Your task to perform on an android device: turn on the 24-hour format for clock Image 0: 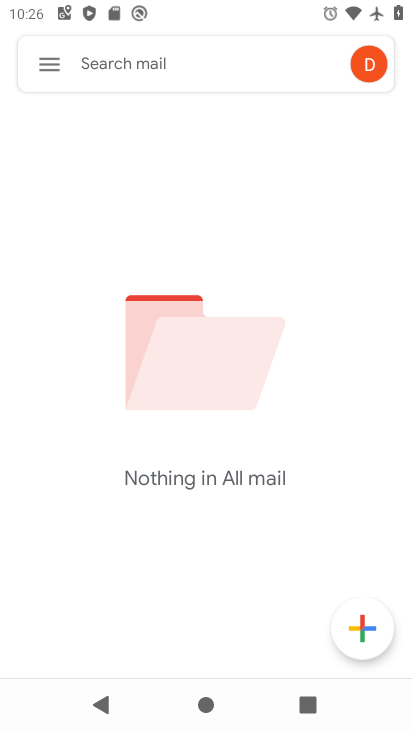
Step 0: press home button
Your task to perform on an android device: turn on the 24-hour format for clock Image 1: 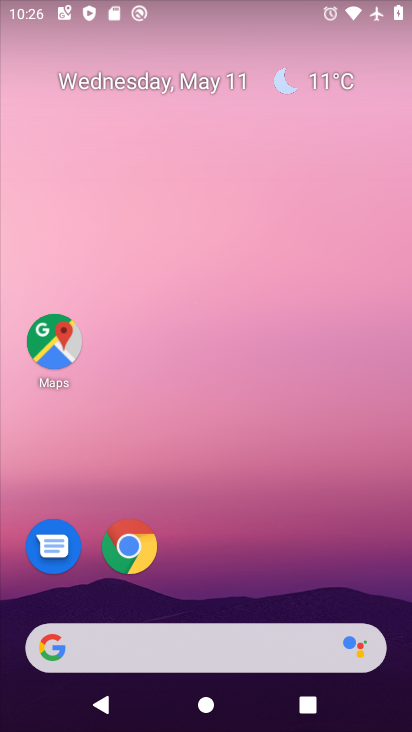
Step 1: drag from (384, 614) to (296, 53)
Your task to perform on an android device: turn on the 24-hour format for clock Image 2: 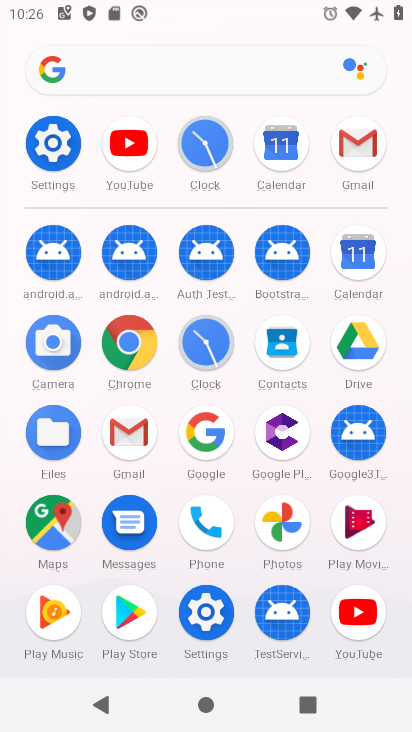
Step 2: click (203, 344)
Your task to perform on an android device: turn on the 24-hour format for clock Image 3: 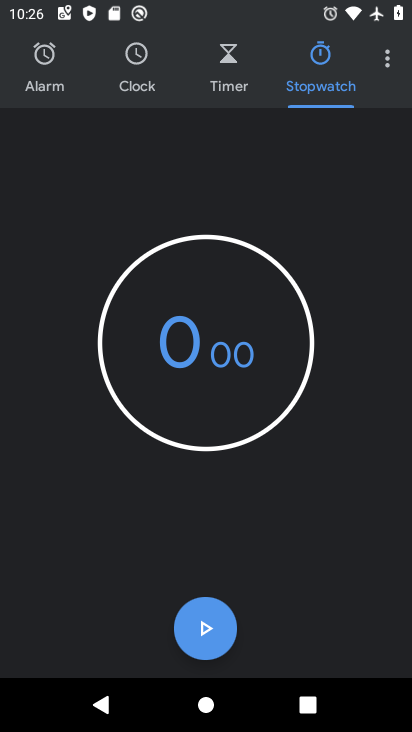
Step 3: click (386, 59)
Your task to perform on an android device: turn on the 24-hour format for clock Image 4: 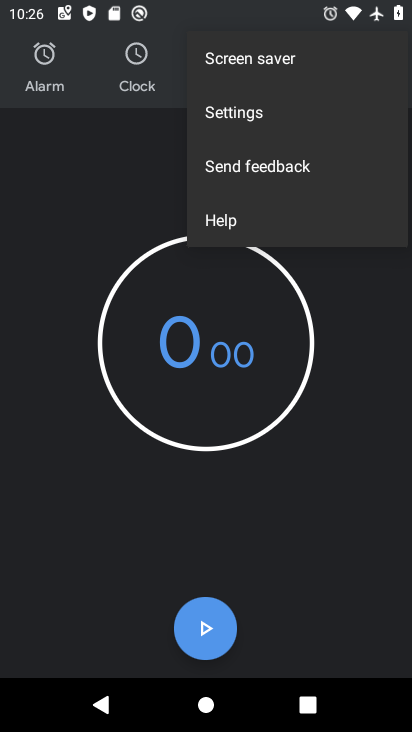
Step 4: click (236, 109)
Your task to perform on an android device: turn on the 24-hour format for clock Image 5: 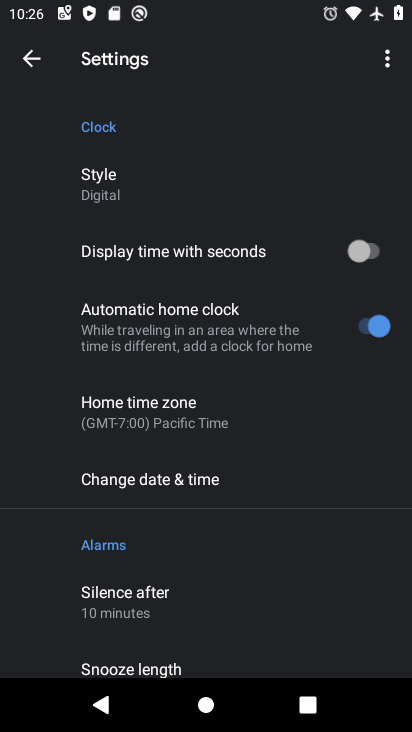
Step 5: click (152, 480)
Your task to perform on an android device: turn on the 24-hour format for clock Image 6: 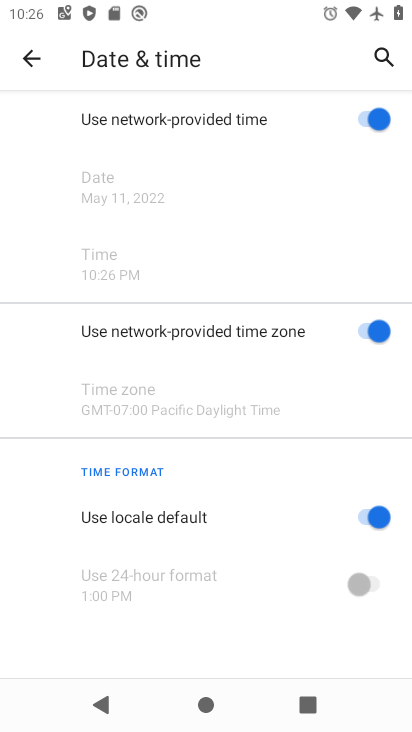
Step 6: click (364, 516)
Your task to perform on an android device: turn on the 24-hour format for clock Image 7: 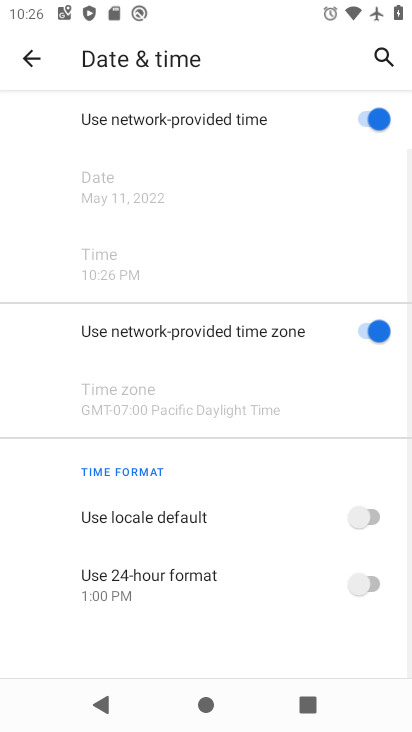
Step 7: click (372, 584)
Your task to perform on an android device: turn on the 24-hour format for clock Image 8: 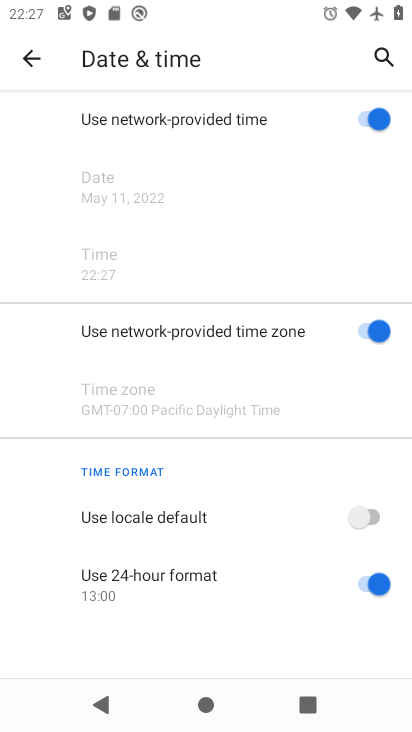
Step 8: task complete